Your task to perform on an android device: Show me the alarms in the clock app Image 0: 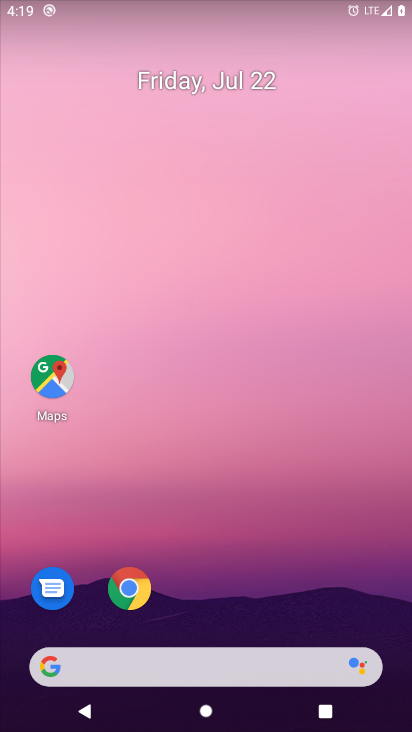
Step 0: drag from (267, 606) to (292, 43)
Your task to perform on an android device: Show me the alarms in the clock app Image 1: 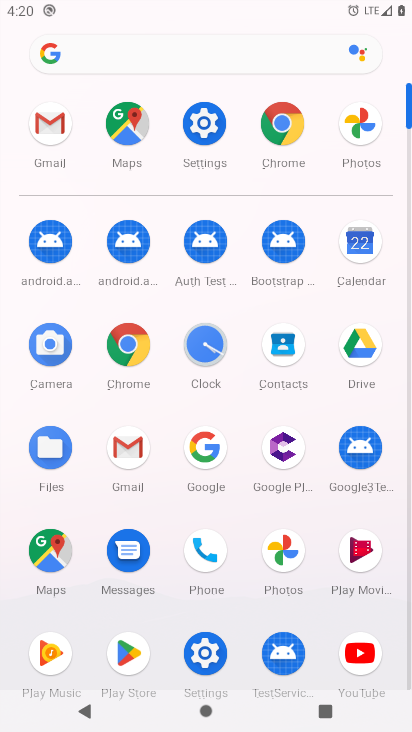
Step 1: click (205, 337)
Your task to perform on an android device: Show me the alarms in the clock app Image 2: 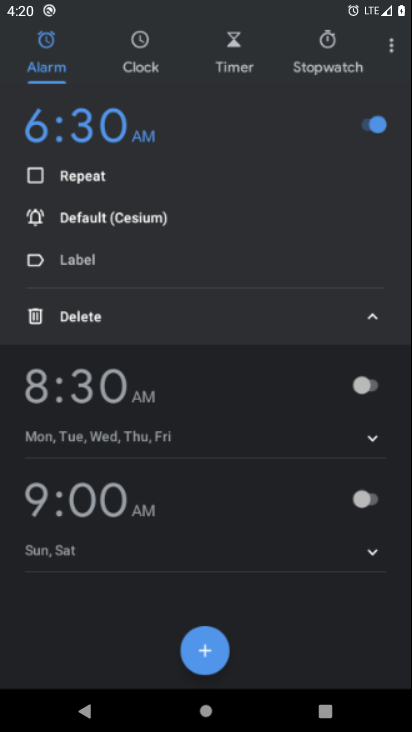
Step 2: click (47, 57)
Your task to perform on an android device: Show me the alarms in the clock app Image 3: 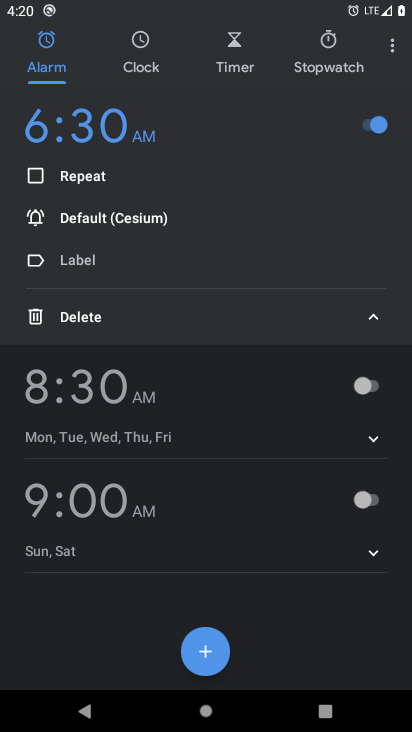
Step 3: task complete